Your task to perform on an android device: toggle data saver in the chrome app Image 0: 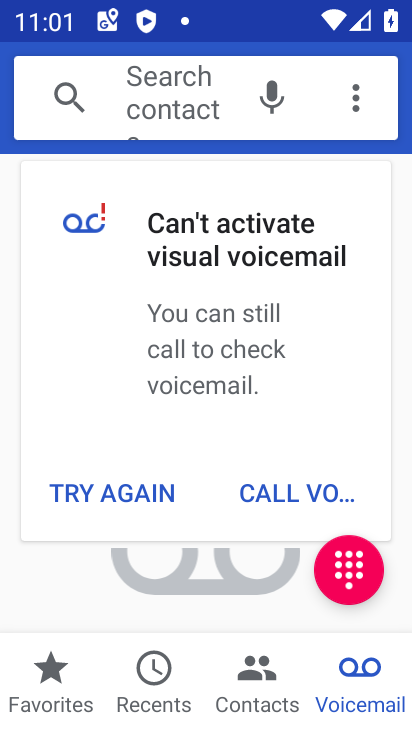
Step 0: press home button
Your task to perform on an android device: toggle data saver in the chrome app Image 1: 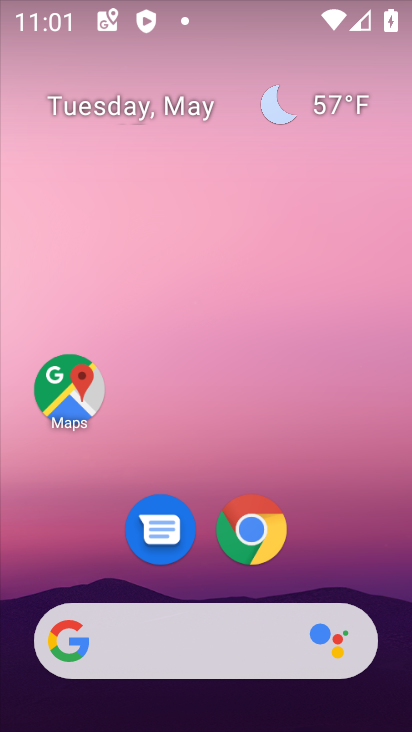
Step 1: click (252, 534)
Your task to perform on an android device: toggle data saver in the chrome app Image 2: 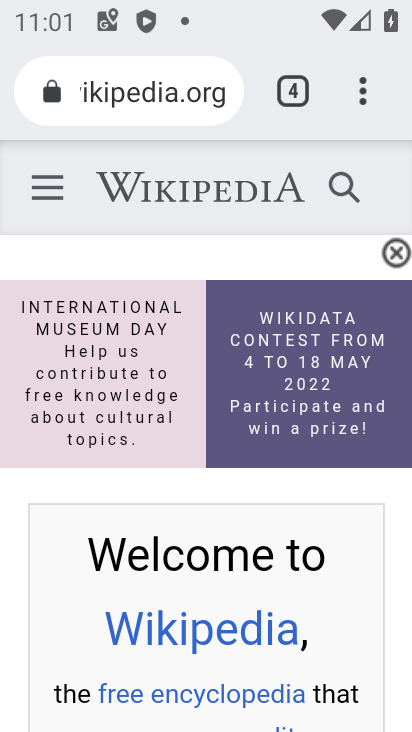
Step 2: click (380, 92)
Your task to perform on an android device: toggle data saver in the chrome app Image 3: 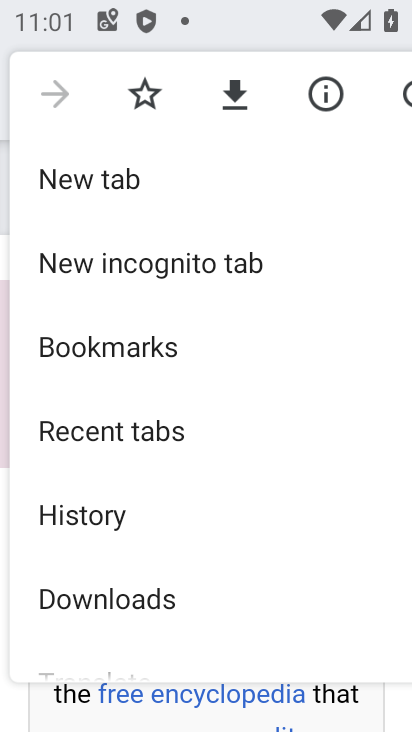
Step 3: drag from (102, 625) to (170, 327)
Your task to perform on an android device: toggle data saver in the chrome app Image 4: 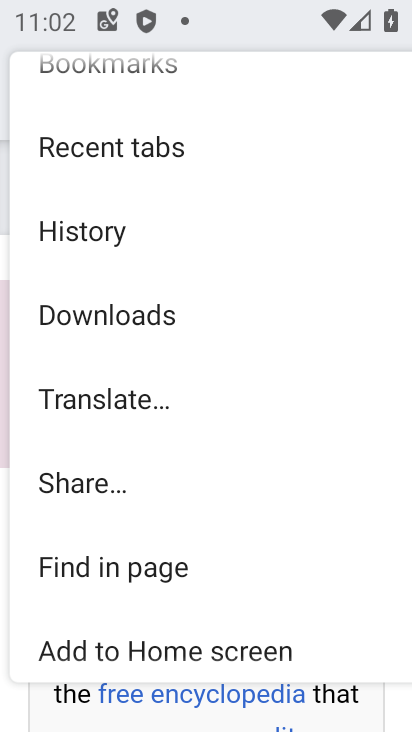
Step 4: drag from (120, 613) to (139, 314)
Your task to perform on an android device: toggle data saver in the chrome app Image 5: 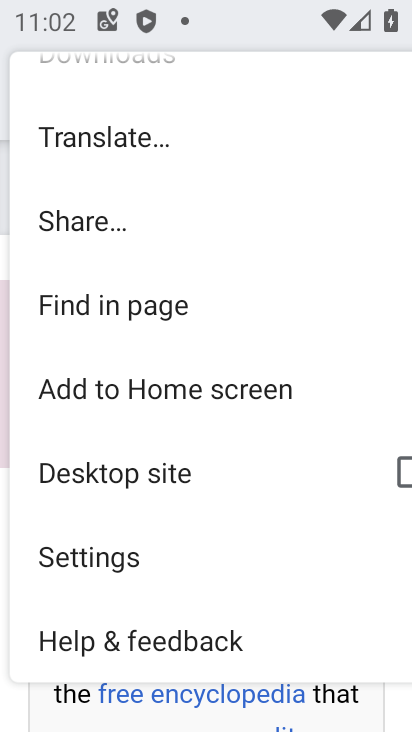
Step 5: click (149, 581)
Your task to perform on an android device: toggle data saver in the chrome app Image 6: 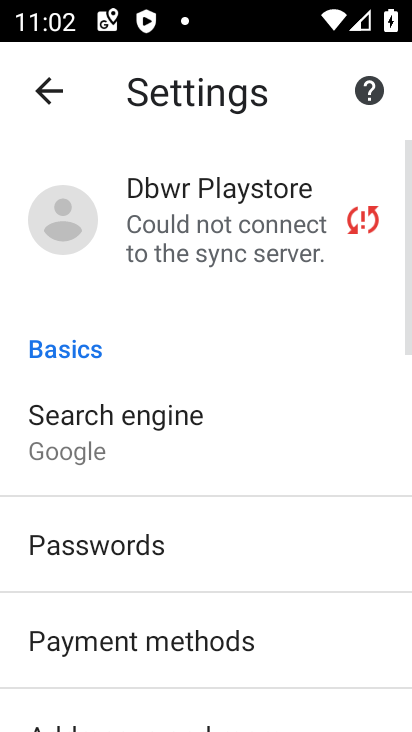
Step 6: drag from (149, 581) to (230, 142)
Your task to perform on an android device: toggle data saver in the chrome app Image 7: 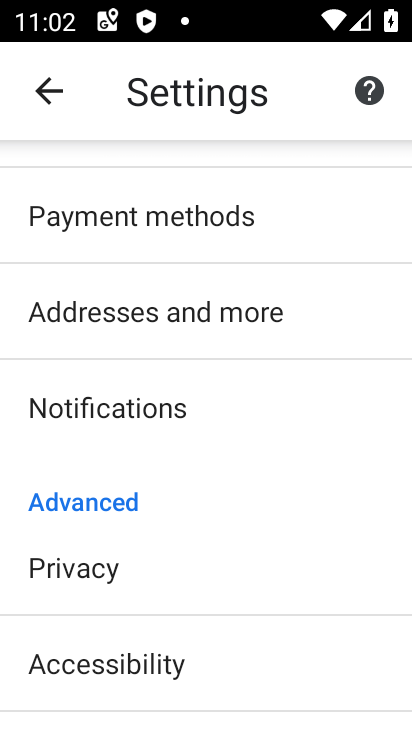
Step 7: drag from (200, 498) to (261, 182)
Your task to perform on an android device: toggle data saver in the chrome app Image 8: 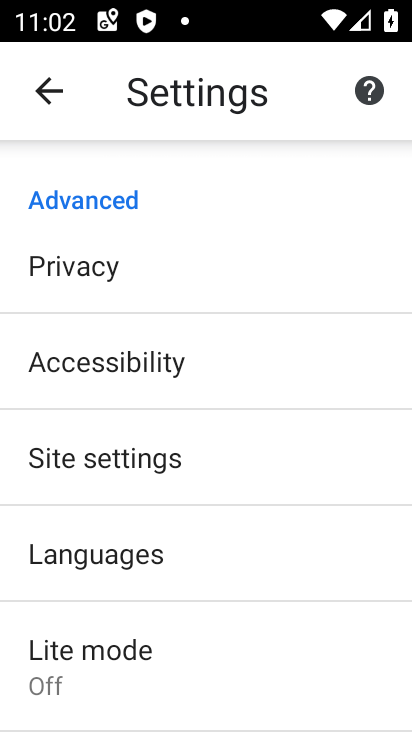
Step 8: click (138, 632)
Your task to perform on an android device: toggle data saver in the chrome app Image 9: 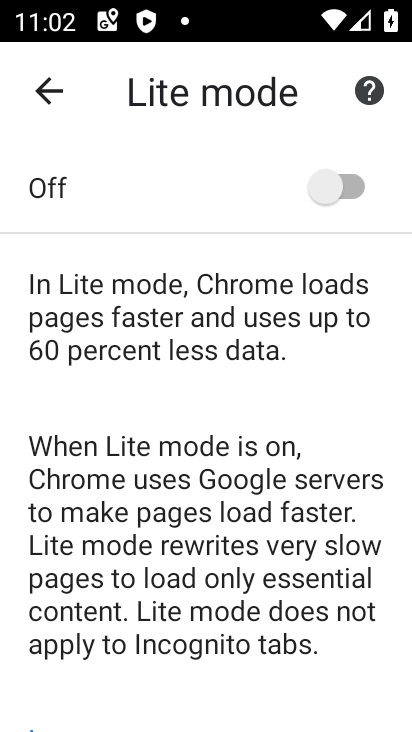
Step 9: click (357, 174)
Your task to perform on an android device: toggle data saver in the chrome app Image 10: 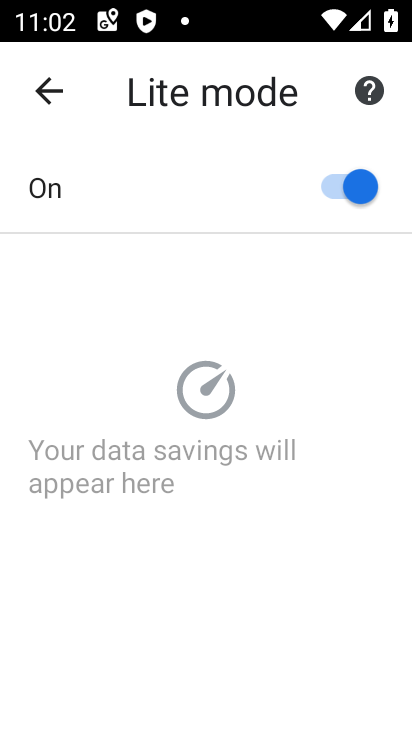
Step 10: click (357, 174)
Your task to perform on an android device: toggle data saver in the chrome app Image 11: 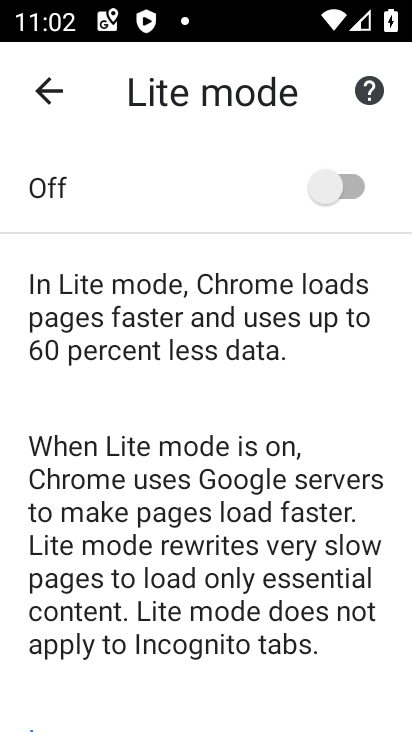
Step 11: task complete